Your task to perform on an android device: Go to Android settings Image 0: 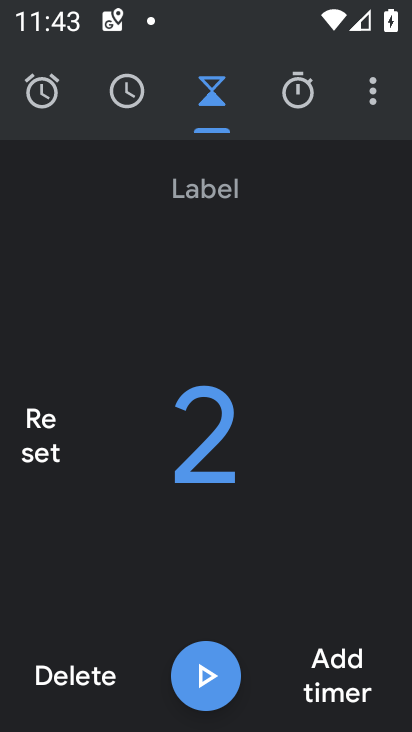
Step 0: press home button
Your task to perform on an android device: Go to Android settings Image 1: 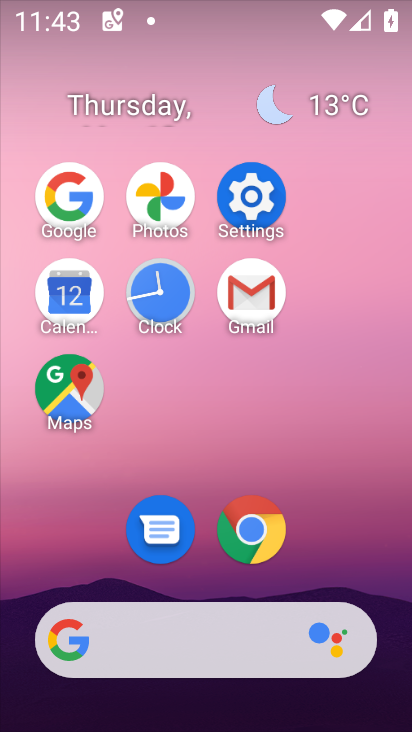
Step 1: click (271, 191)
Your task to perform on an android device: Go to Android settings Image 2: 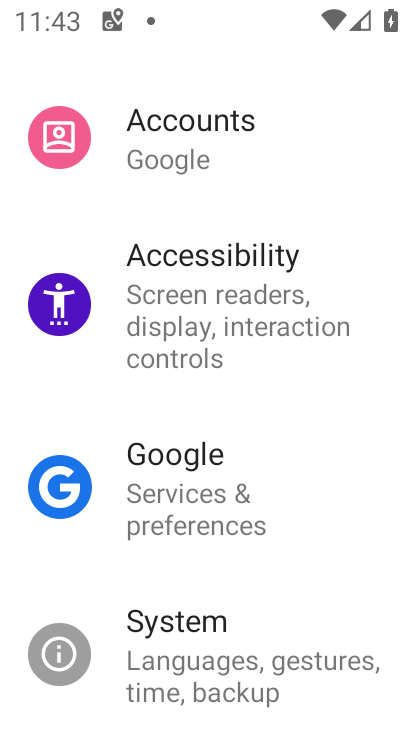
Step 2: task complete